Your task to perform on an android device: delete the emails in spam in the gmail app Image 0: 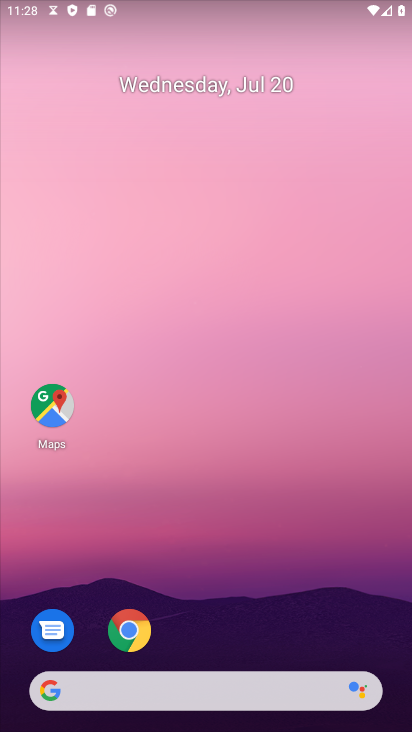
Step 0: drag from (190, 424) to (359, 26)
Your task to perform on an android device: delete the emails in spam in the gmail app Image 1: 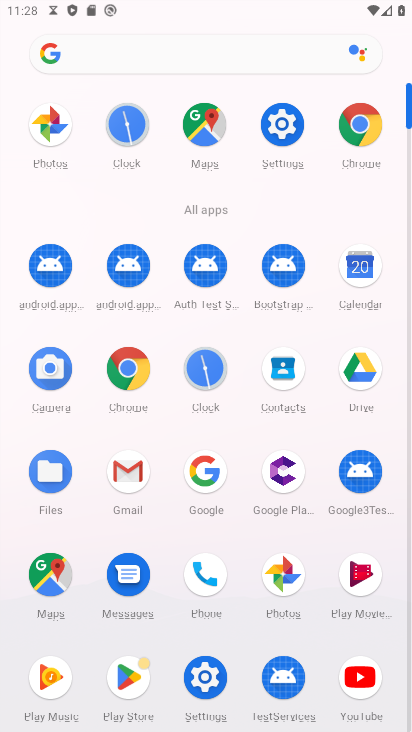
Step 1: click (133, 472)
Your task to perform on an android device: delete the emails in spam in the gmail app Image 2: 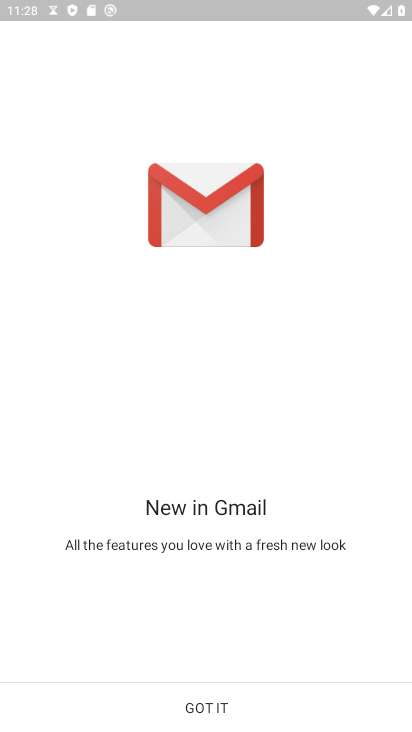
Step 2: click (206, 706)
Your task to perform on an android device: delete the emails in spam in the gmail app Image 3: 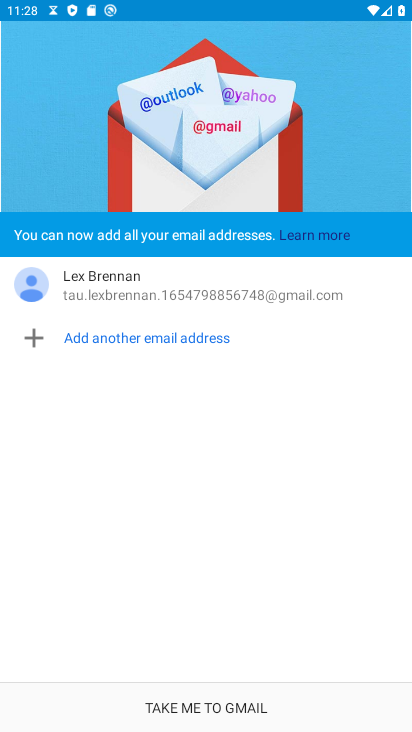
Step 3: click (213, 711)
Your task to perform on an android device: delete the emails in spam in the gmail app Image 4: 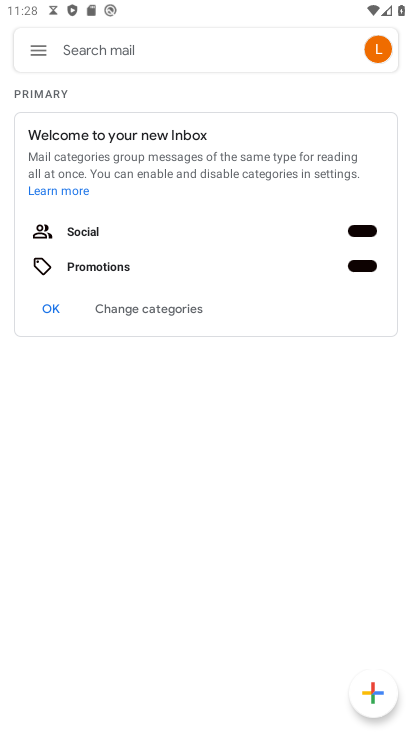
Step 4: click (33, 51)
Your task to perform on an android device: delete the emails in spam in the gmail app Image 5: 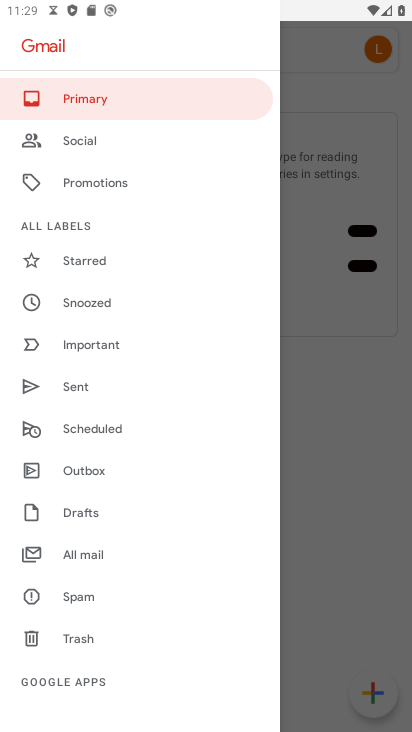
Step 5: click (86, 595)
Your task to perform on an android device: delete the emails in spam in the gmail app Image 6: 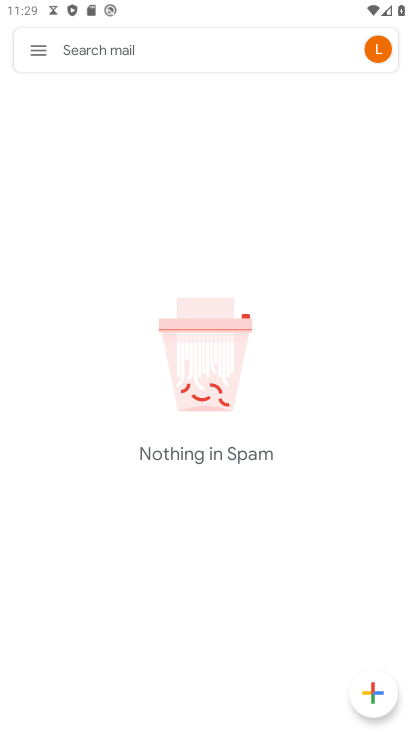
Step 6: task complete